Your task to perform on an android device: Go to Amazon Image 0: 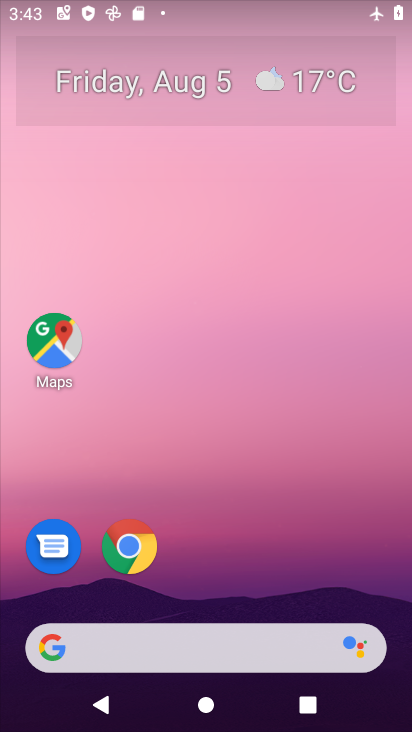
Step 0: drag from (334, 532) to (327, 111)
Your task to perform on an android device: Go to Amazon Image 1: 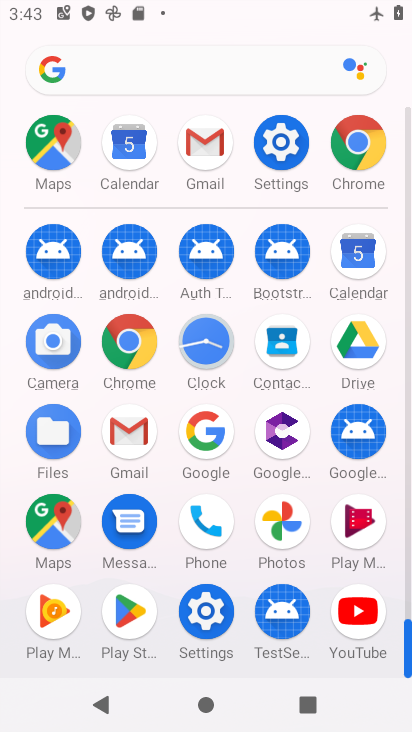
Step 1: click (136, 340)
Your task to perform on an android device: Go to Amazon Image 2: 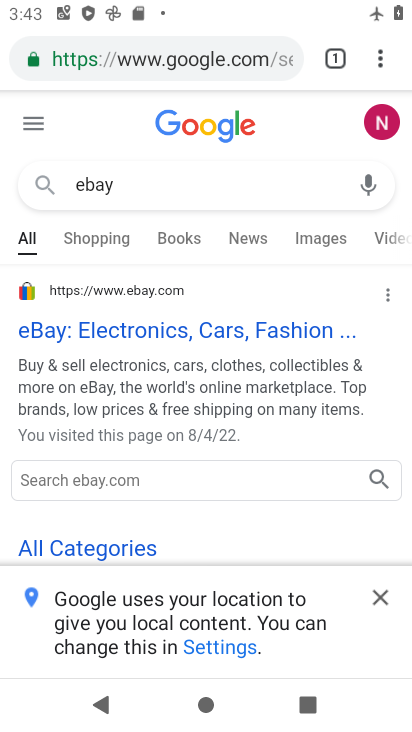
Step 2: click (249, 60)
Your task to perform on an android device: Go to Amazon Image 3: 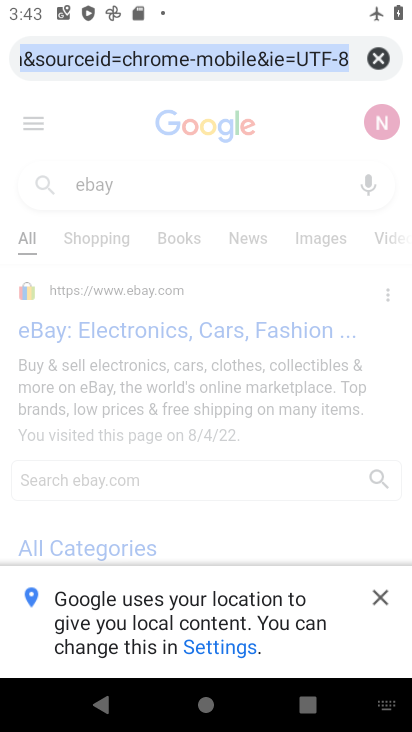
Step 3: type "amazon"
Your task to perform on an android device: Go to Amazon Image 4: 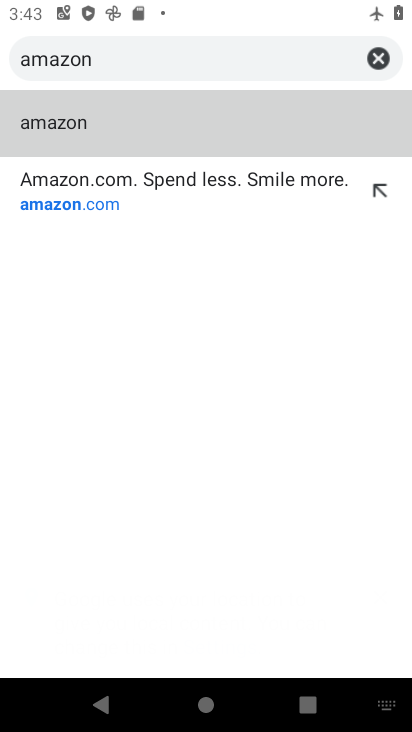
Step 4: click (212, 120)
Your task to perform on an android device: Go to Amazon Image 5: 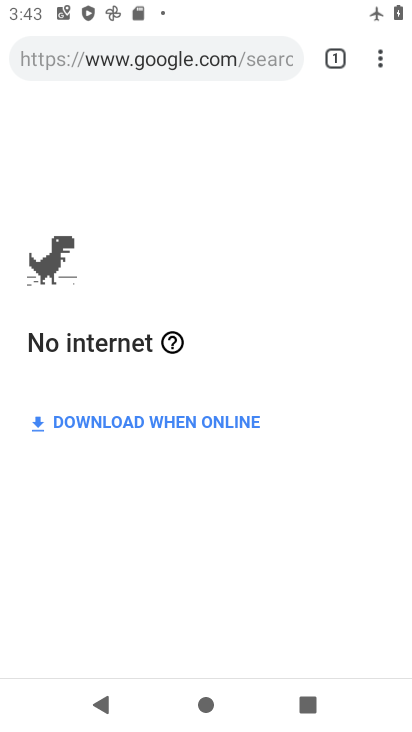
Step 5: task complete